Your task to perform on an android device: Show me the alarms in the clock app Image 0: 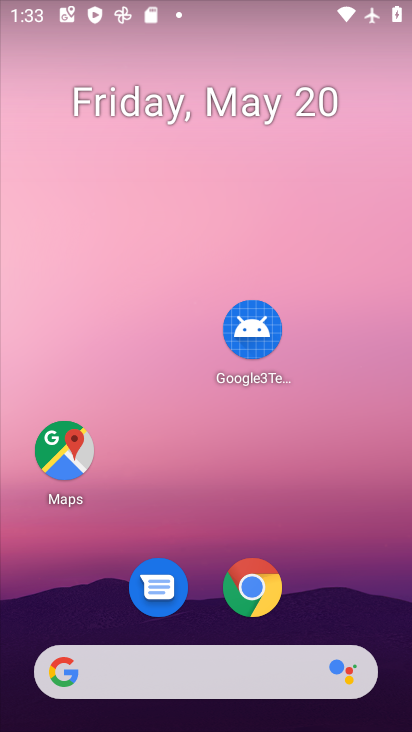
Step 0: click (245, 56)
Your task to perform on an android device: Show me the alarms in the clock app Image 1: 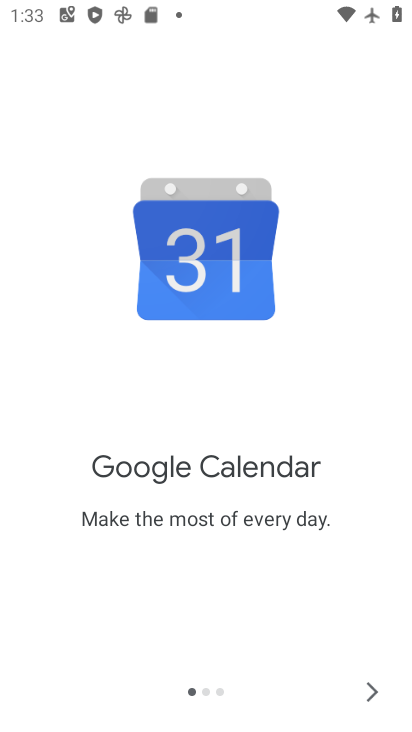
Step 1: click (365, 692)
Your task to perform on an android device: Show me the alarms in the clock app Image 2: 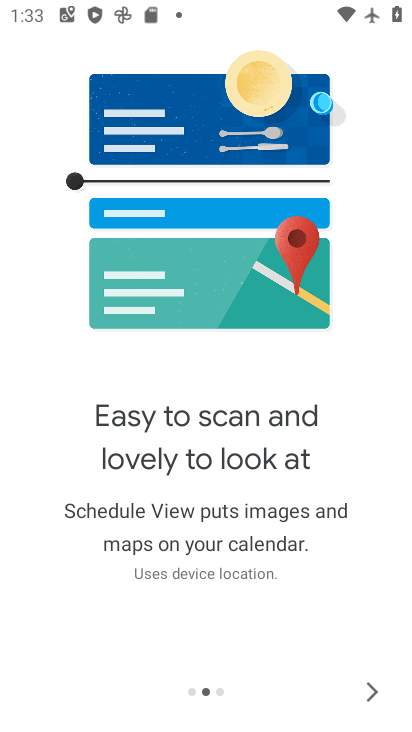
Step 2: click (365, 692)
Your task to perform on an android device: Show me the alarms in the clock app Image 3: 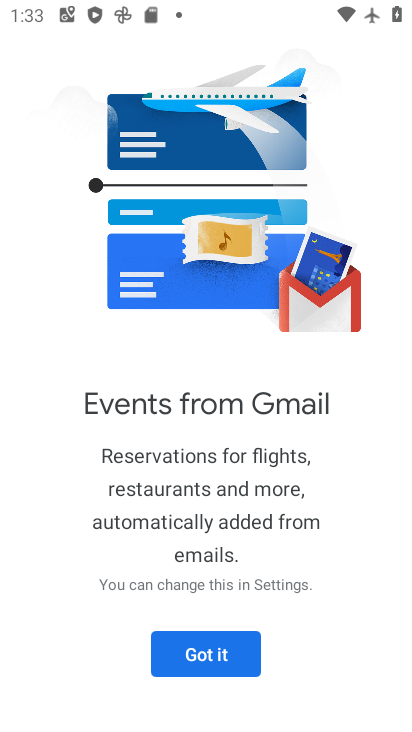
Step 3: press home button
Your task to perform on an android device: Show me the alarms in the clock app Image 4: 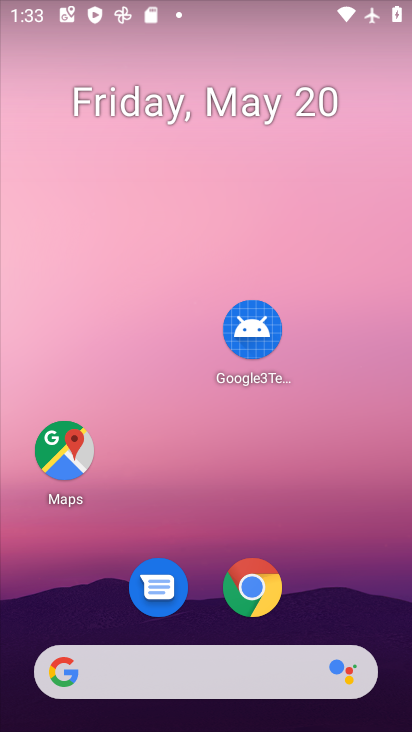
Step 4: drag from (308, 535) to (247, 17)
Your task to perform on an android device: Show me the alarms in the clock app Image 5: 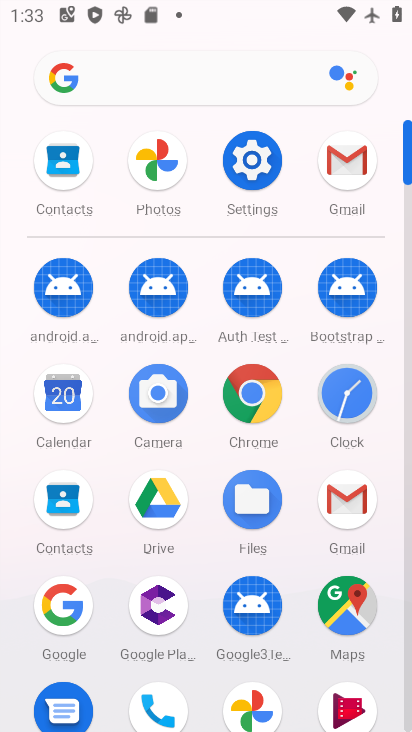
Step 5: click (352, 395)
Your task to perform on an android device: Show me the alarms in the clock app Image 6: 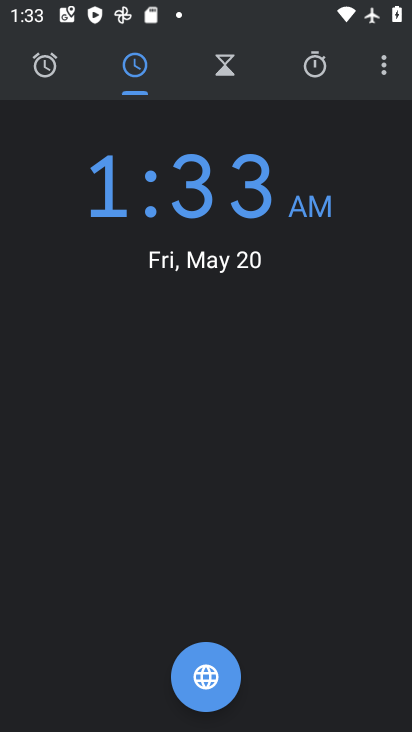
Step 6: click (45, 66)
Your task to perform on an android device: Show me the alarms in the clock app Image 7: 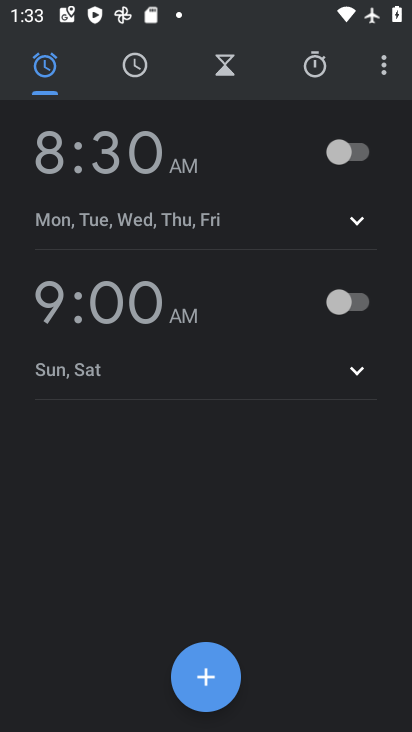
Step 7: task complete